Your task to perform on an android device: Open settings on Google Maps Image 0: 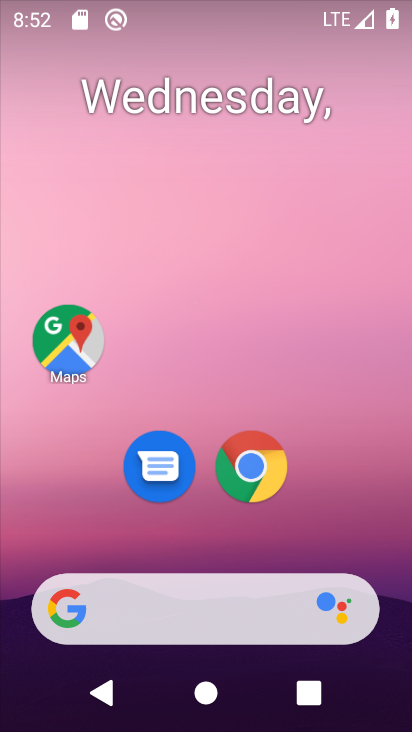
Step 0: drag from (224, 724) to (210, 187)
Your task to perform on an android device: Open settings on Google Maps Image 1: 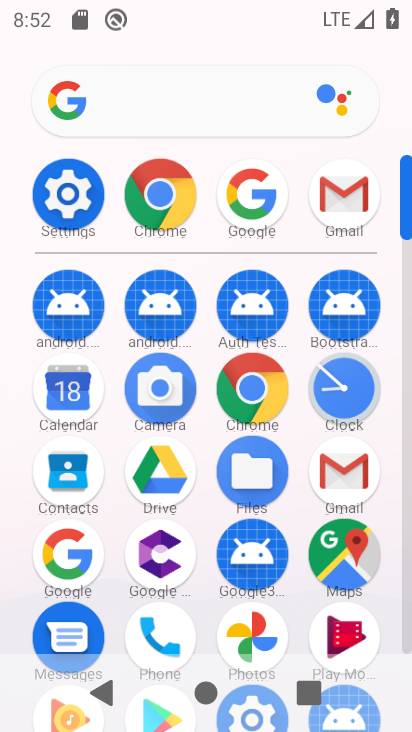
Step 1: click (357, 554)
Your task to perform on an android device: Open settings on Google Maps Image 2: 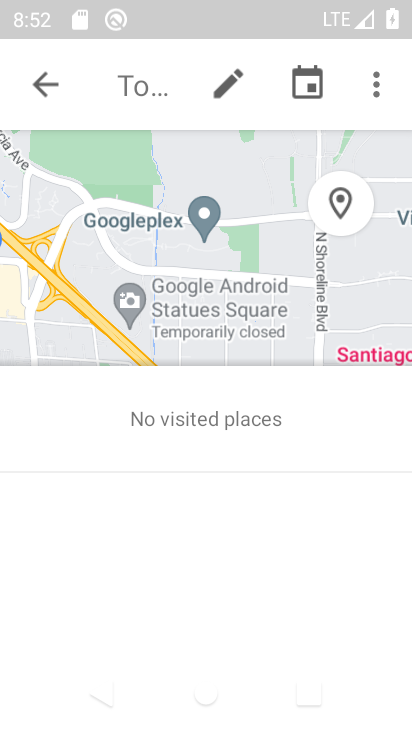
Step 2: click (40, 76)
Your task to perform on an android device: Open settings on Google Maps Image 3: 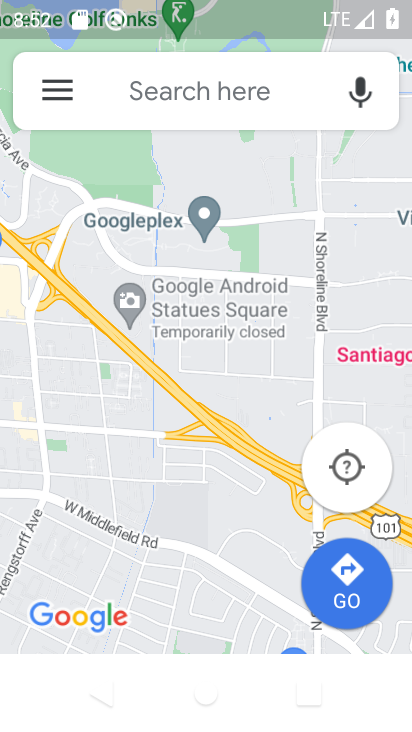
Step 3: click (48, 83)
Your task to perform on an android device: Open settings on Google Maps Image 4: 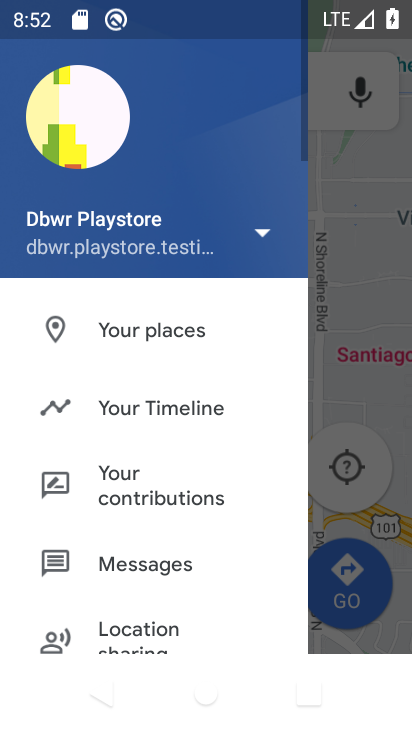
Step 4: drag from (142, 552) to (148, 234)
Your task to perform on an android device: Open settings on Google Maps Image 5: 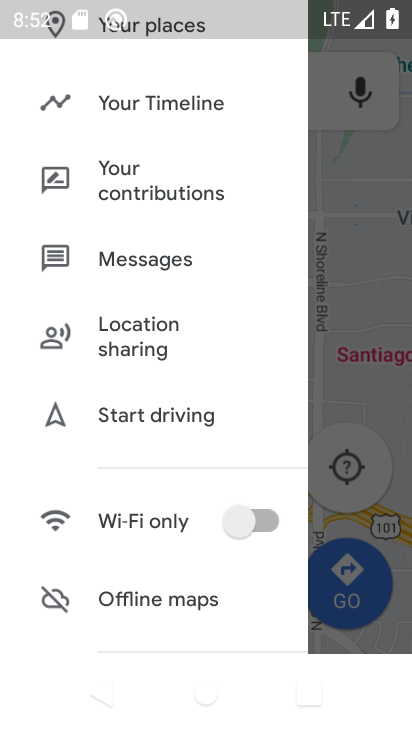
Step 5: drag from (95, 597) to (135, 267)
Your task to perform on an android device: Open settings on Google Maps Image 6: 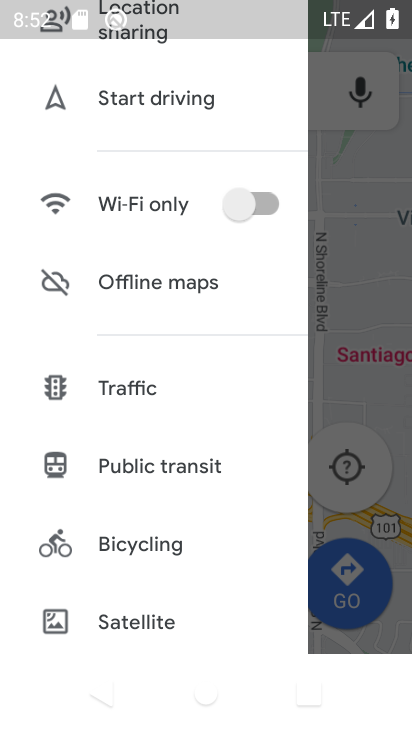
Step 6: drag from (146, 589) to (149, 233)
Your task to perform on an android device: Open settings on Google Maps Image 7: 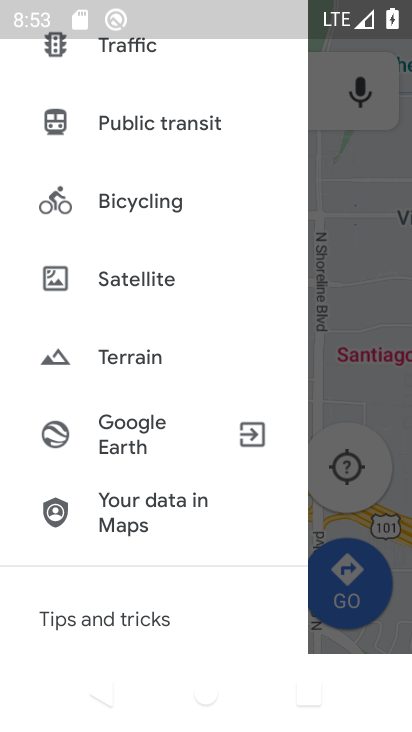
Step 7: drag from (169, 593) to (169, 184)
Your task to perform on an android device: Open settings on Google Maps Image 8: 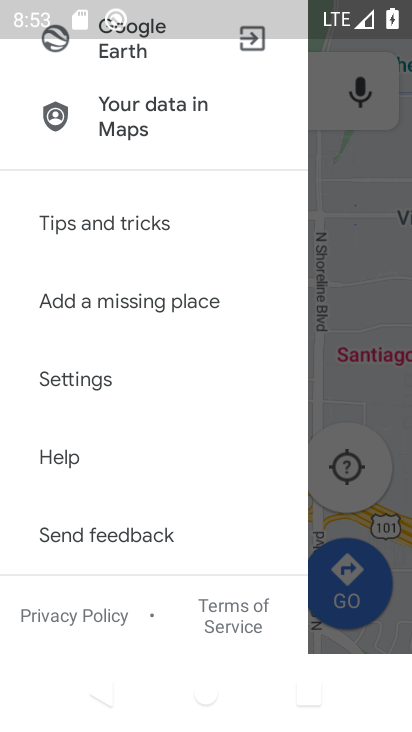
Step 8: click (60, 373)
Your task to perform on an android device: Open settings on Google Maps Image 9: 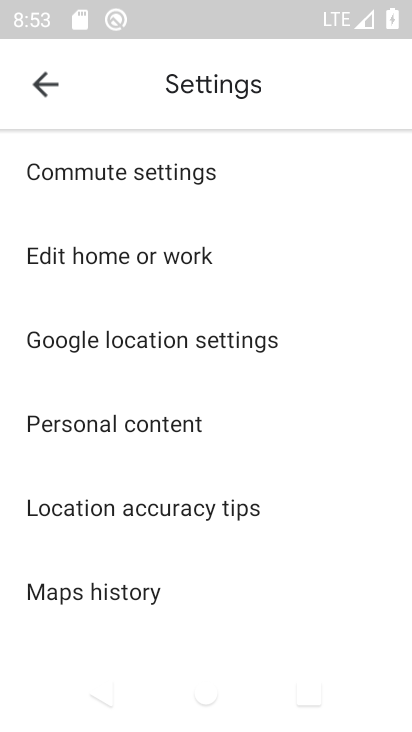
Step 9: task complete